Your task to perform on an android device: Play the last video I watched on Youtube Image 0: 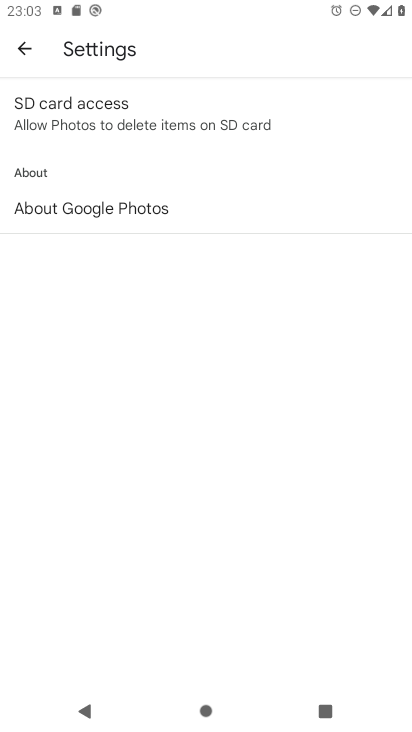
Step 0: press home button
Your task to perform on an android device: Play the last video I watched on Youtube Image 1: 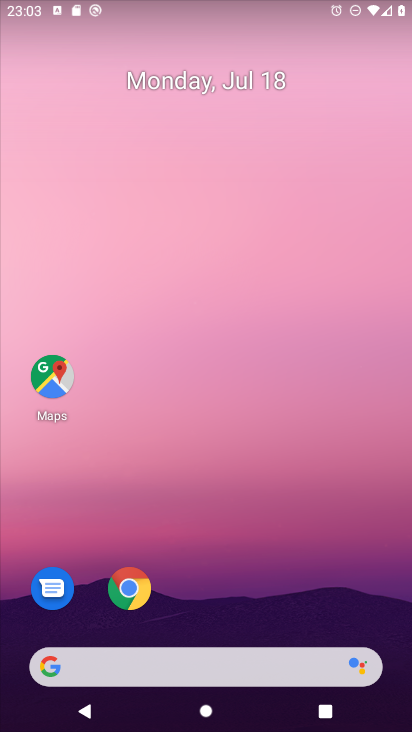
Step 1: drag from (393, 624) to (284, 95)
Your task to perform on an android device: Play the last video I watched on Youtube Image 2: 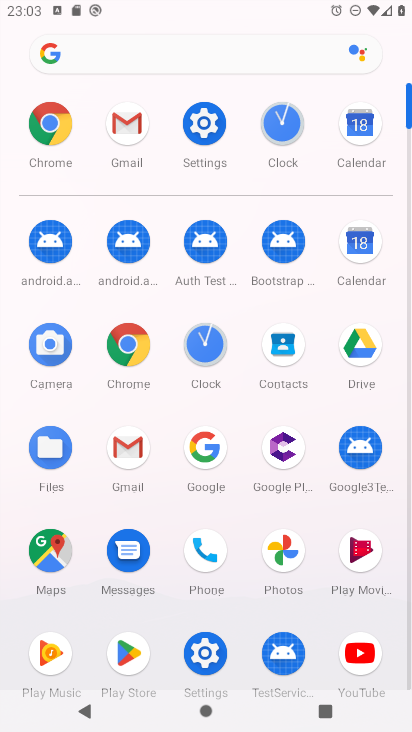
Step 2: click (361, 655)
Your task to perform on an android device: Play the last video I watched on Youtube Image 3: 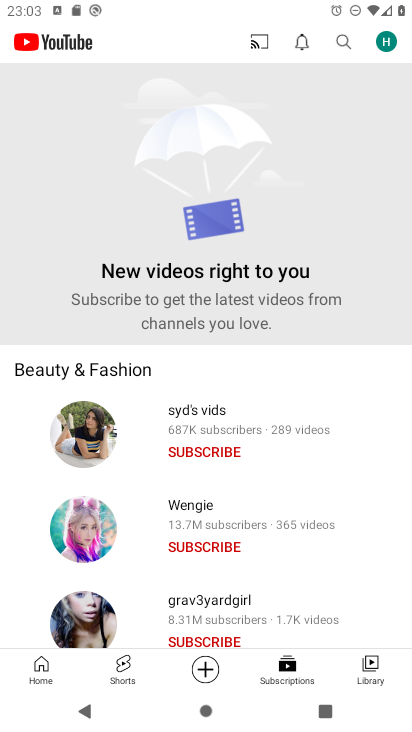
Step 3: click (376, 673)
Your task to perform on an android device: Play the last video I watched on Youtube Image 4: 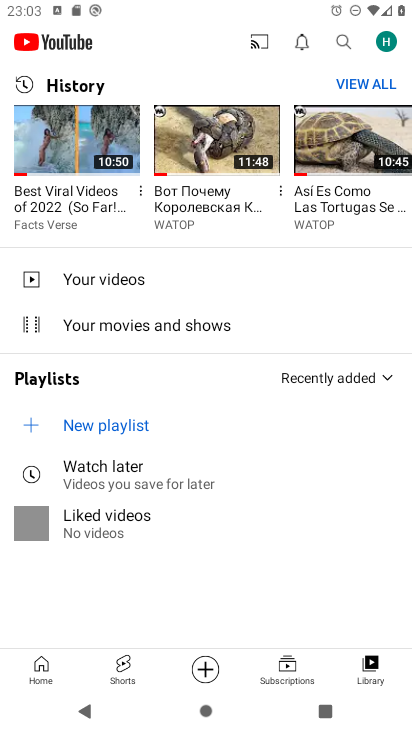
Step 4: click (84, 140)
Your task to perform on an android device: Play the last video I watched on Youtube Image 5: 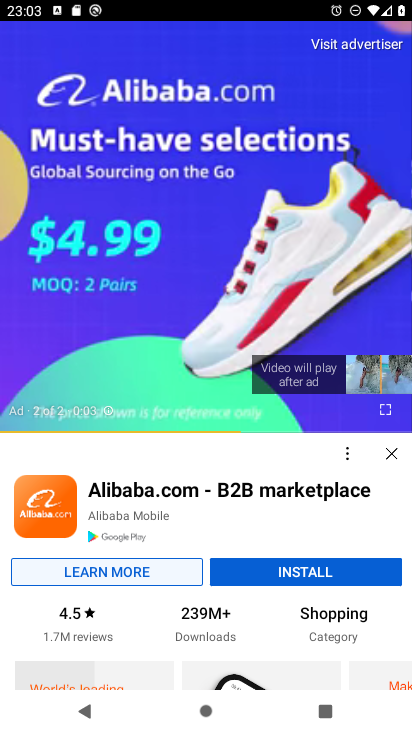
Step 5: click (391, 454)
Your task to perform on an android device: Play the last video I watched on Youtube Image 6: 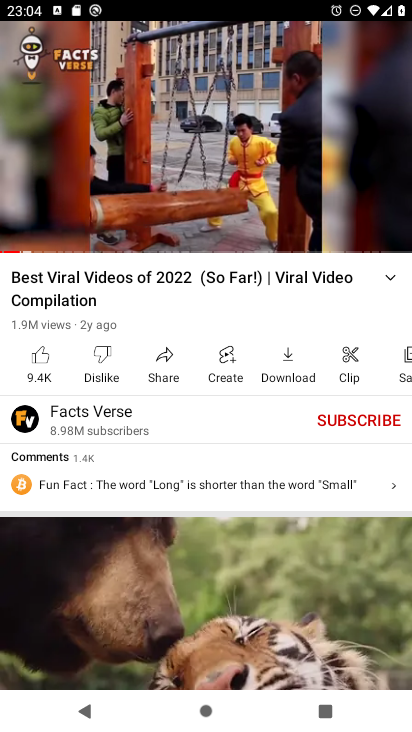
Step 6: click (202, 119)
Your task to perform on an android device: Play the last video I watched on Youtube Image 7: 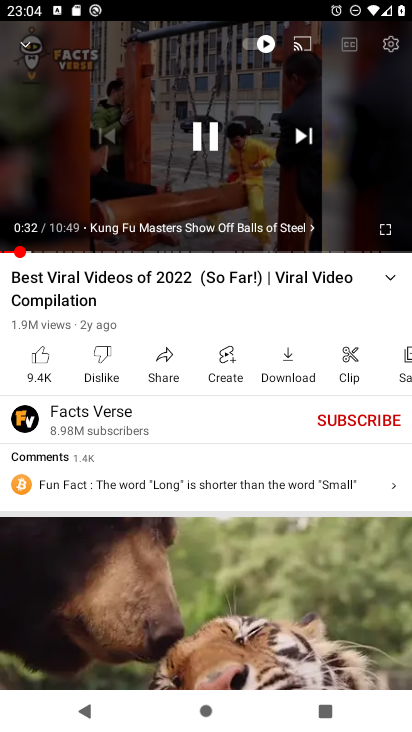
Step 7: click (202, 119)
Your task to perform on an android device: Play the last video I watched on Youtube Image 8: 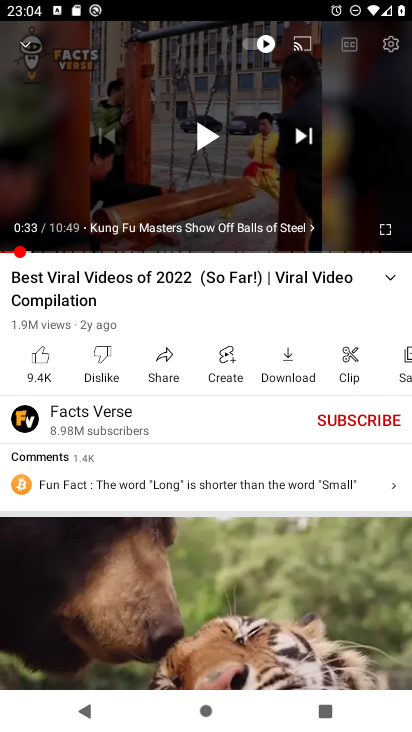
Step 8: task complete